Your task to perform on an android device: When is my next appointment? Image 0: 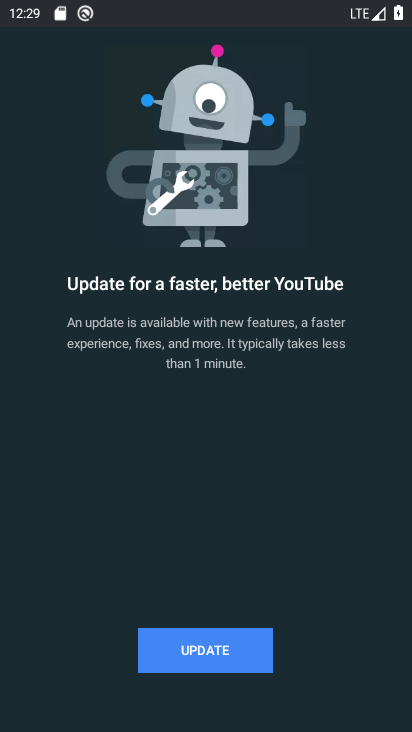
Step 0: press home button
Your task to perform on an android device: When is my next appointment? Image 1: 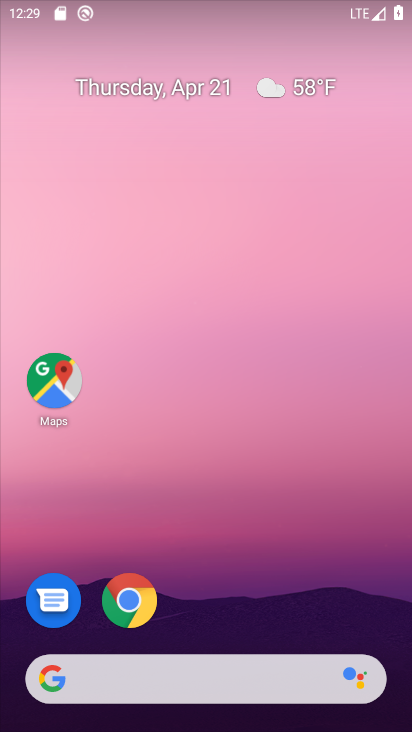
Step 1: drag from (250, 588) to (294, 107)
Your task to perform on an android device: When is my next appointment? Image 2: 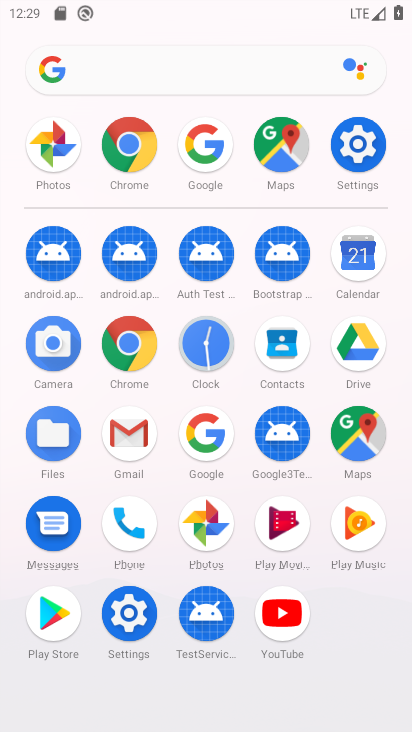
Step 2: click (353, 253)
Your task to perform on an android device: When is my next appointment? Image 3: 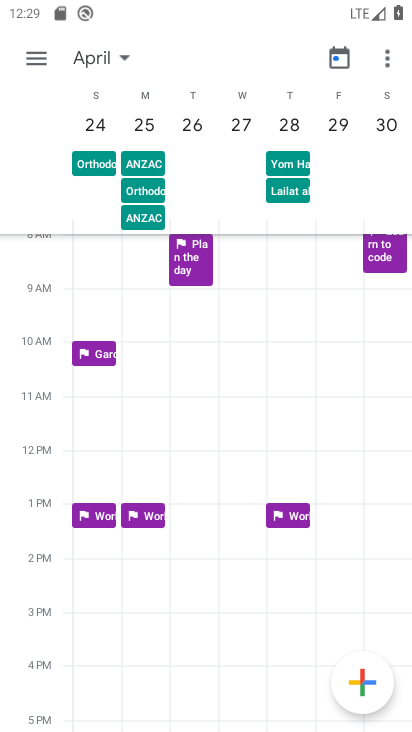
Step 3: click (37, 52)
Your task to perform on an android device: When is my next appointment? Image 4: 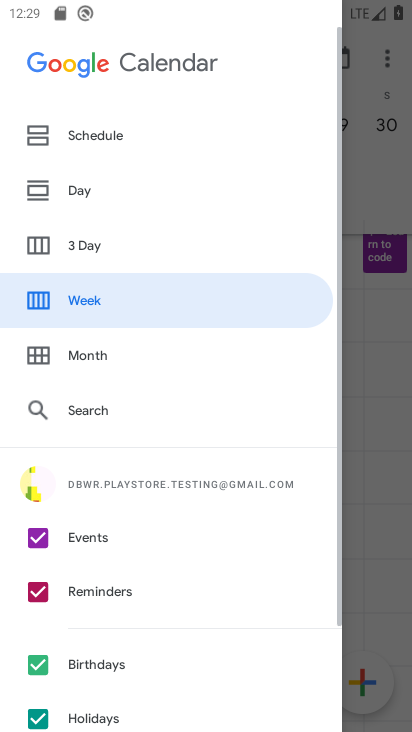
Step 4: click (77, 126)
Your task to perform on an android device: When is my next appointment? Image 5: 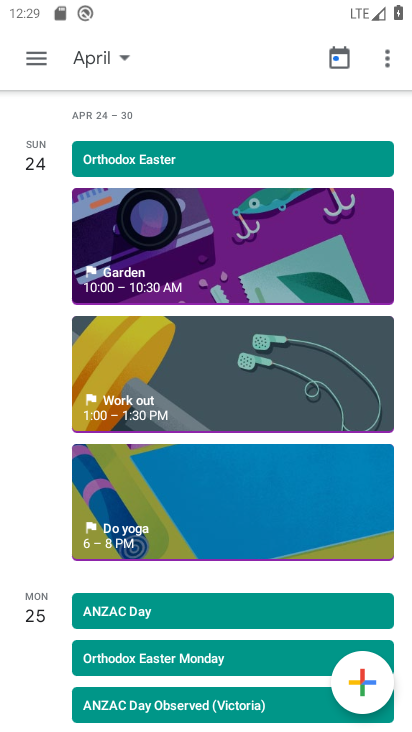
Step 5: task complete